Your task to perform on an android device: Go to Maps Image 0: 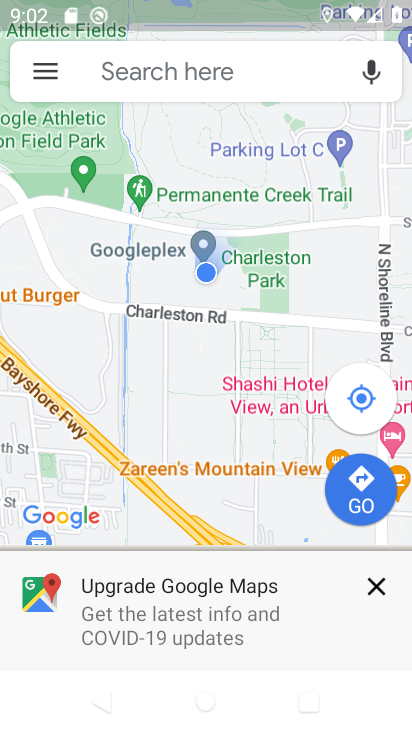
Step 0: click (300, 82)
Your task to perform on an android device: Go to Maps Image 1: 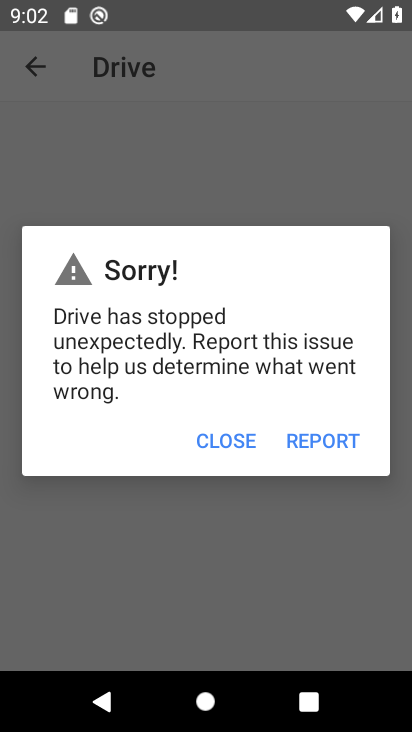
Step 1: press home button
Your task to perform on an android device: Go to Maps Image 2: 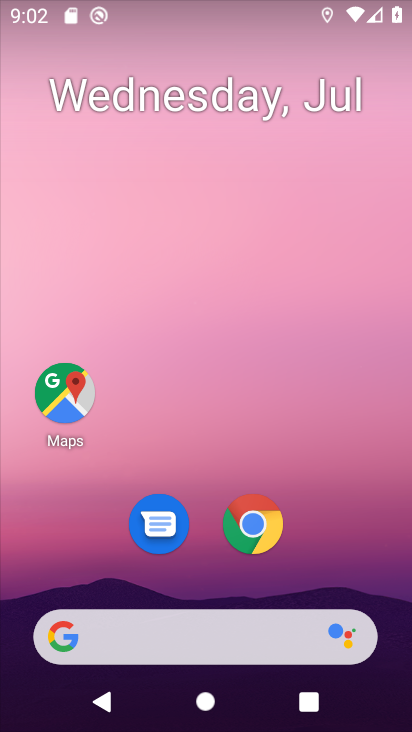
Step 2: click (66, 407)
Your task to perform on an android device: Go to Maps Image 3: 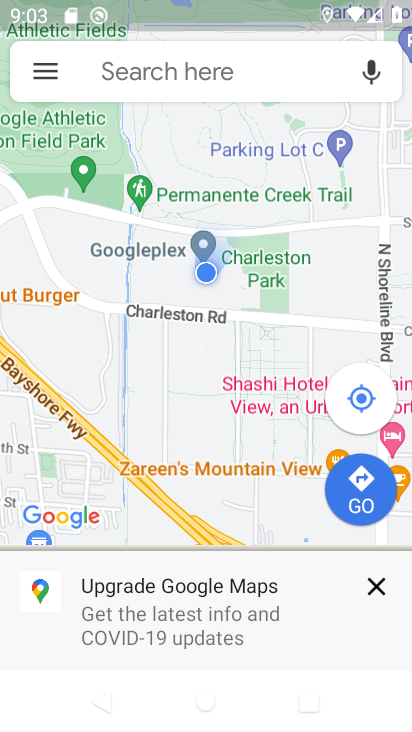
Step 3: task complete